Your task to perform on an android device: toggle translation in the chrome app Image 0: 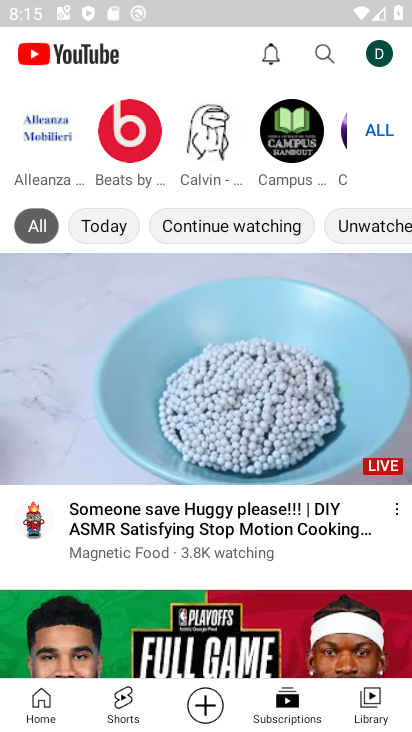
Step 0: press home button
Your task to perform on an android device: toggle translation in the chrome app Image 1: 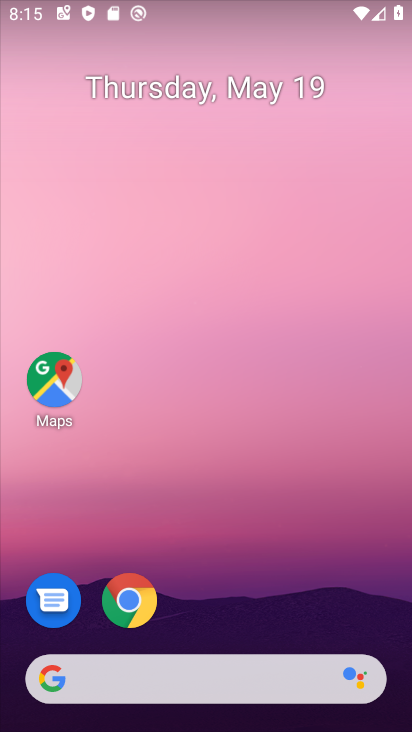
Step 1: click (140, 603)
Your task to perform on an android device: toggle translation in the chrome app Image 2: 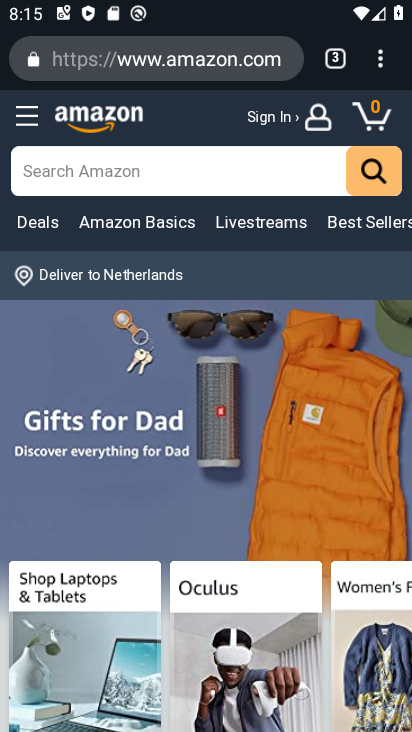
Step 2: click (381, 64)
Your task to perform on an android device: toggle translation in the chrome app Image 3: 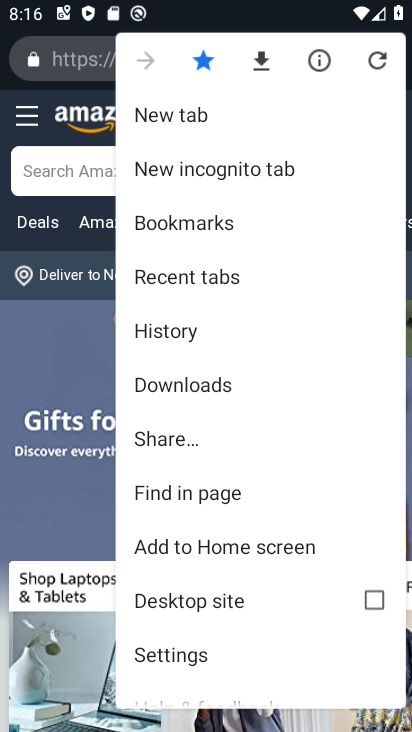
Step 3: click (178, 658)
Your task to perform on an android device: toggle translation in the chrome app Image 4: 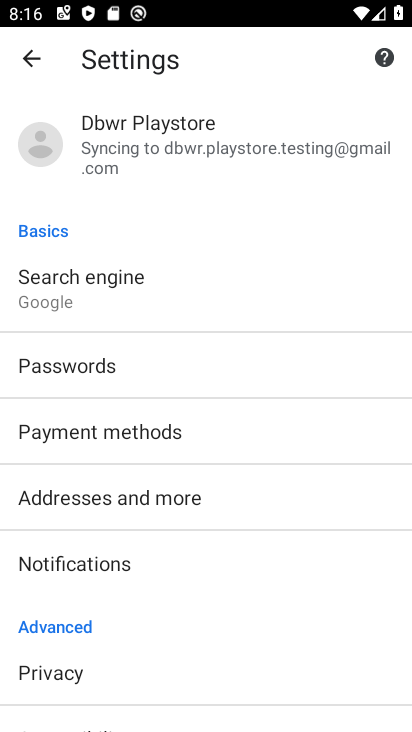
Step 4: drag from (231, 628) to (242, 96)
Your task to perform on an android device: toggle translation in the chrome app Image 5: 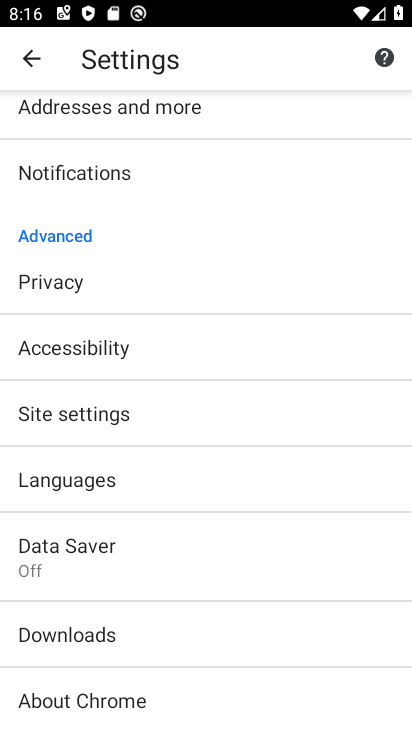
Step 5: click (59, 476)
Your task to perform on an android device: toggle translation in the chrome app Image 6: 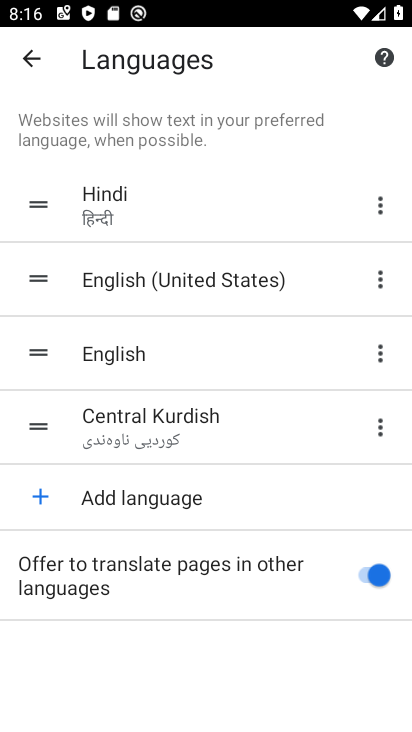
Step 6: click (378, 581)
Your task to perform on an android device: toggle translation in the chrome app Image 7: 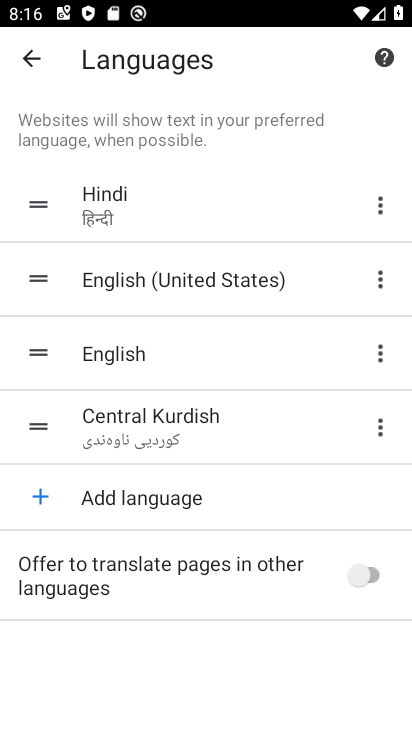
Step 7: task complete